Your task to perform on an android device: When is my next appointment? Image 0: 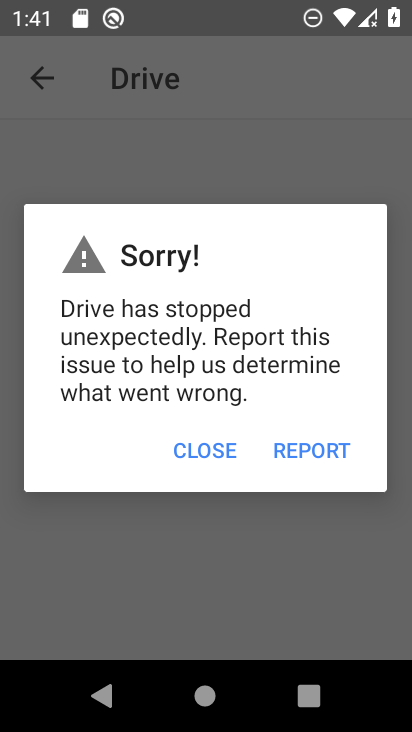
Step 0: click (203, 450)
Your task to perform on an android device: When is my next appointment? Image 1: 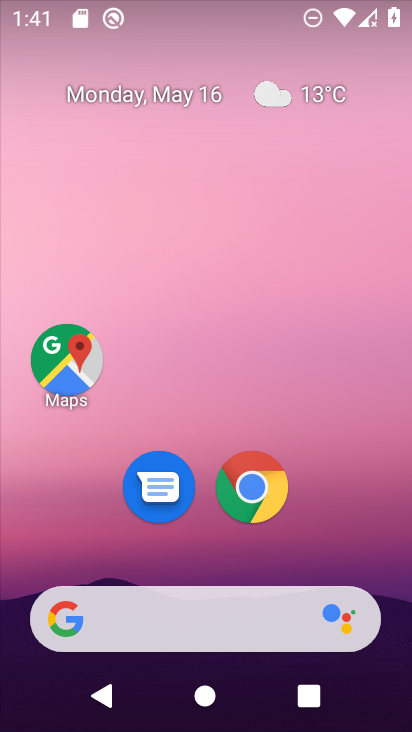
Step 1: drag from (399, 627) to (321, 209)
Your task to perform on an android device: When is my next appointment? Image 2: 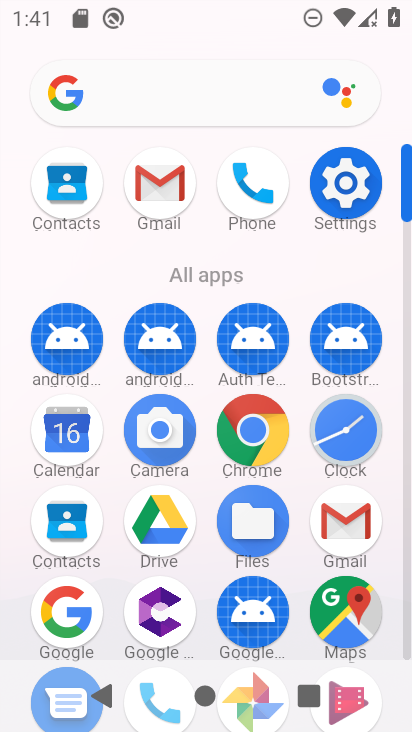
Step 2: click (79, 444)
Your task to perform on an android device: When is my next appointment? Image 3: 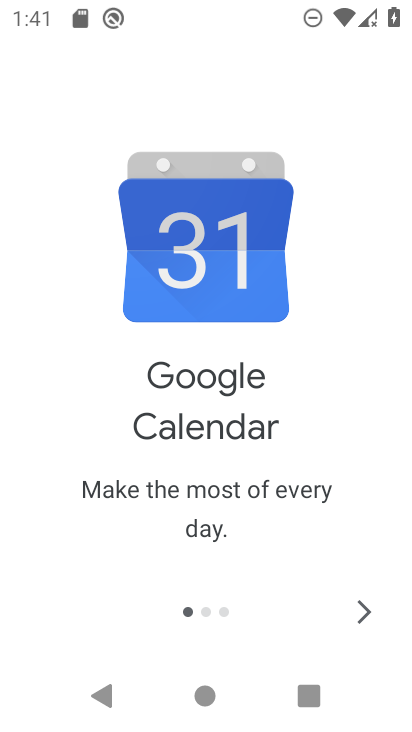
Step 3: click (215, 484)
Your task to perform on an android device: When is my next appointment? Image 4: 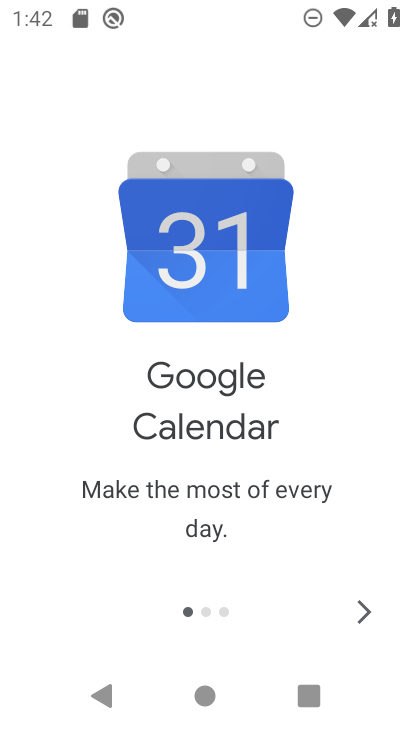
Step 4: click (360, 610)
Your task to perform on an android device: When is my next appointment? Image 5: 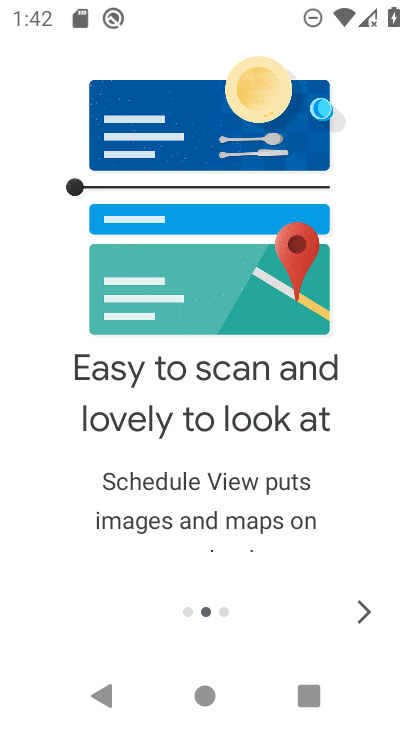
Step 5: click (360, 609)
Your task to perform on an android device: When is my next appointment? Image 6: 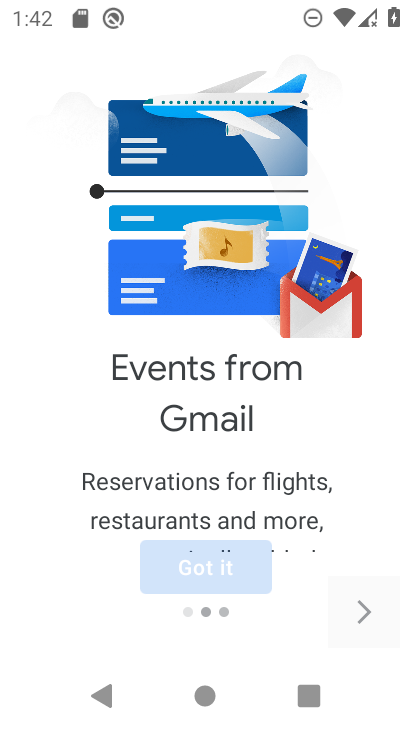
Step 6: click (360, 609)
Your task to perform on an android device: When is my next appointment? Image 7: 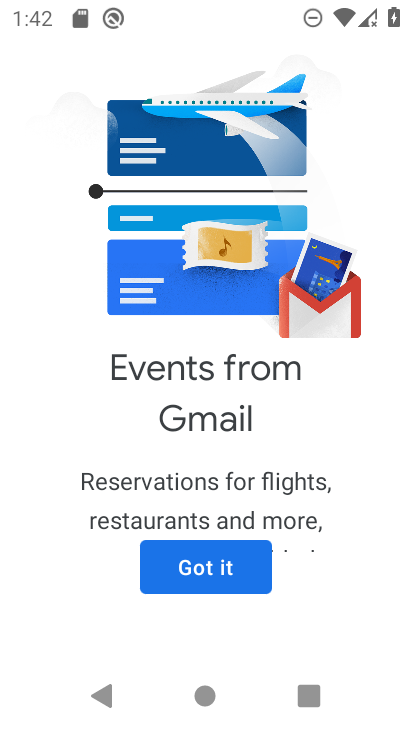
Step 7: click (243, 565)
Your task to perform on an android device: When is my next appointment? Image 8: 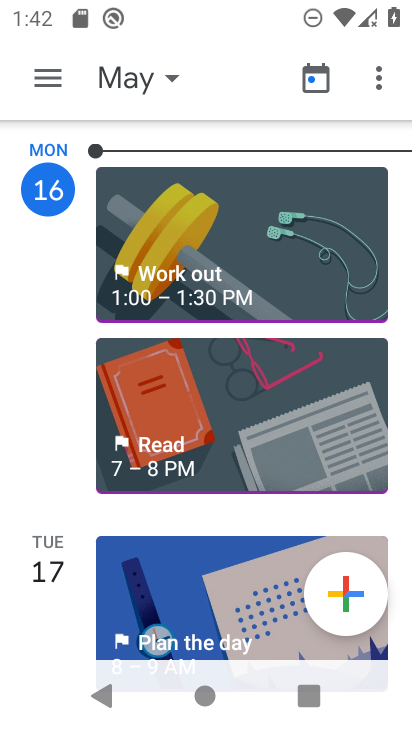
Step 8: click (49, 76)
Your task to perform on an android device: When is my next appointment? Image 9: 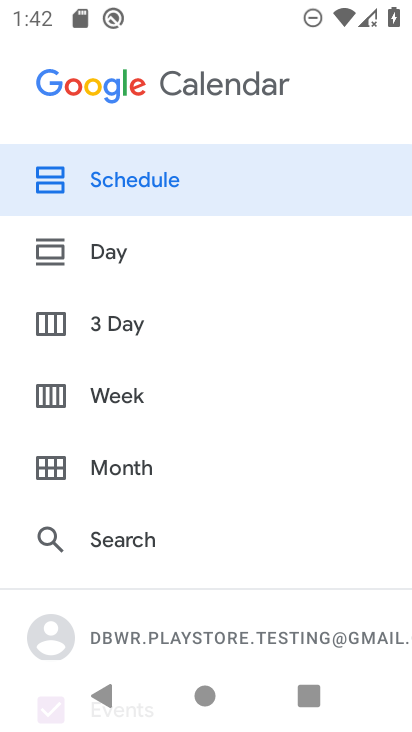
Step 9: click (107, 183)
Your task to perform on an android device: When is my next appointment? Image 10: 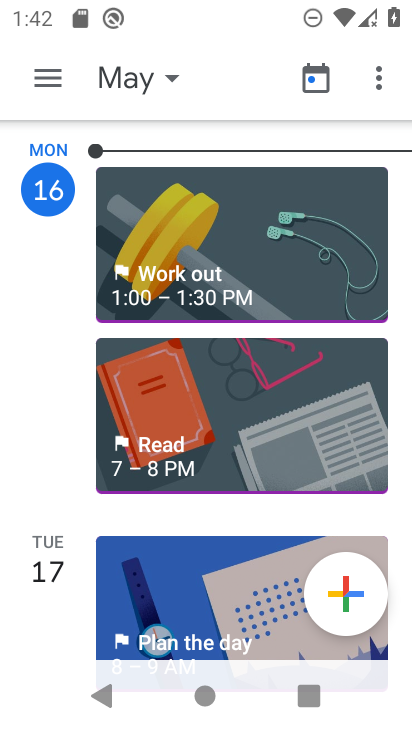
Step 10: click (55, 76)
Your task to perform on an android device: When is my next appointment? Image 11: 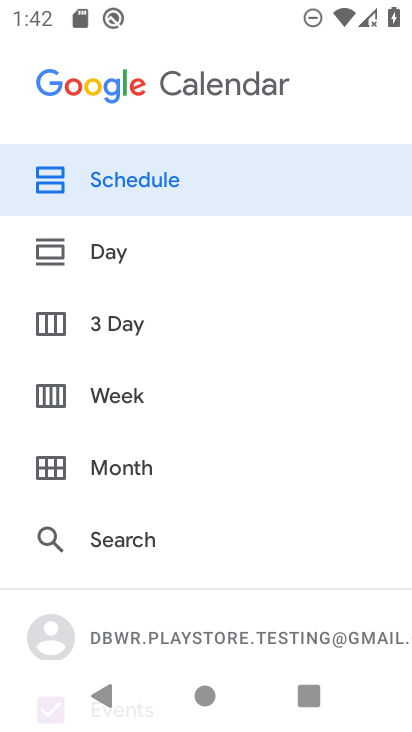
Step 11: drag from (252, 570) to (291, 274)
Your task to perform on an android device: When is my next appointment? Image 12: 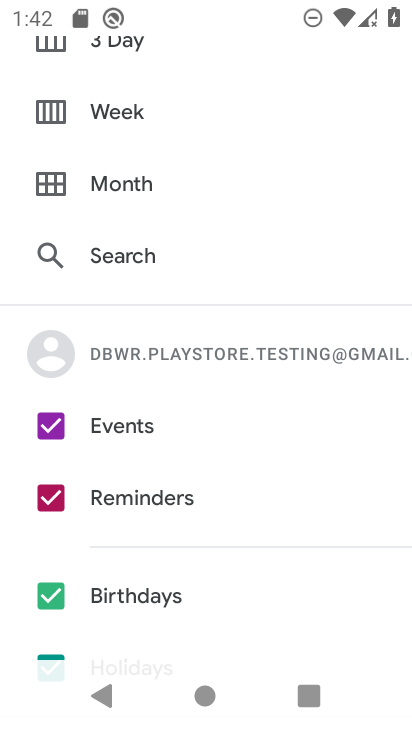
Step 12: drag from (134, 604) to (120, 420)
Your task to perform on an android device: When is my next appointment? Image 13: 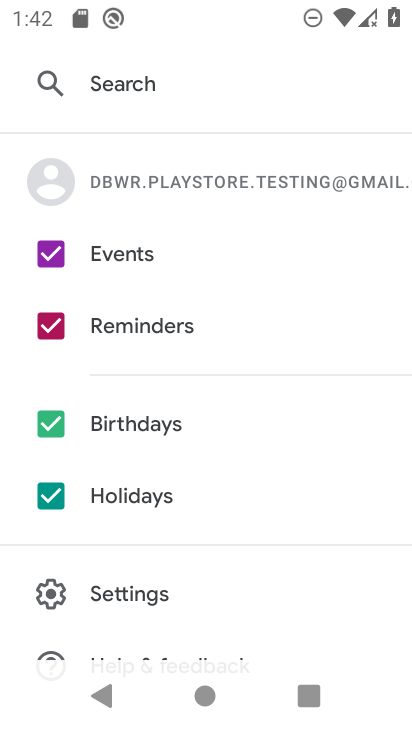
Step 13: click (54, 482)
Your task to perform on an android device: When is my next appointment? Image 14: 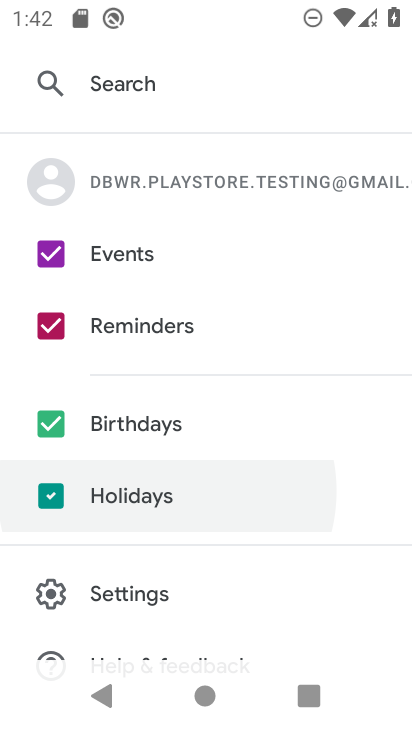
Step 14: click (54, 406)
Your task to perform on an android device: When is my next appointment? Image 15: 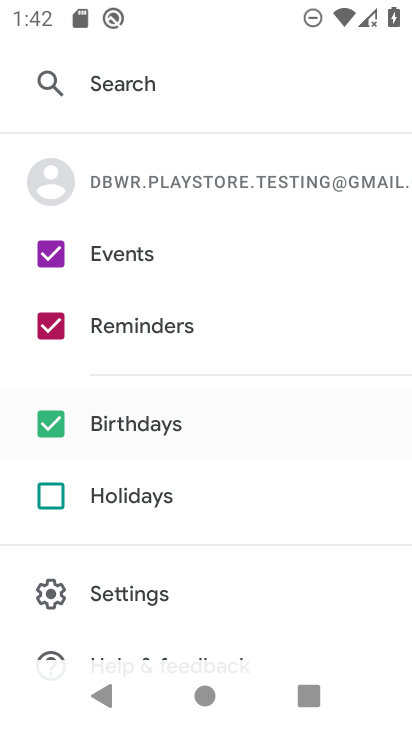
Step 15: click (55, 330)
Your task to perform on an android device: When is my next appointment? Image 16: 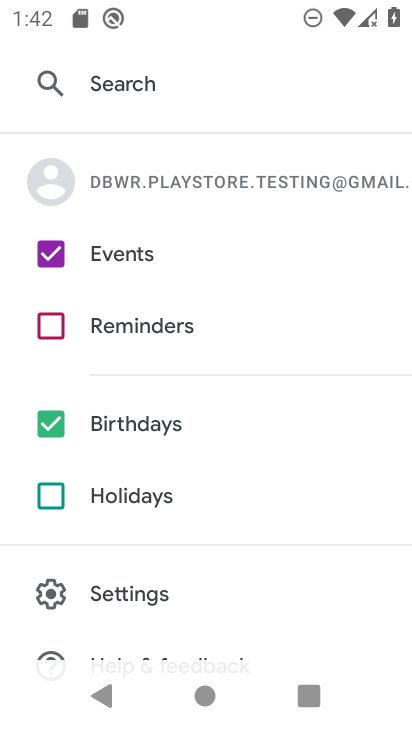
Step 16: click (48, 426)
Your task to perform on an android device: When is my next appointment? Image 17: 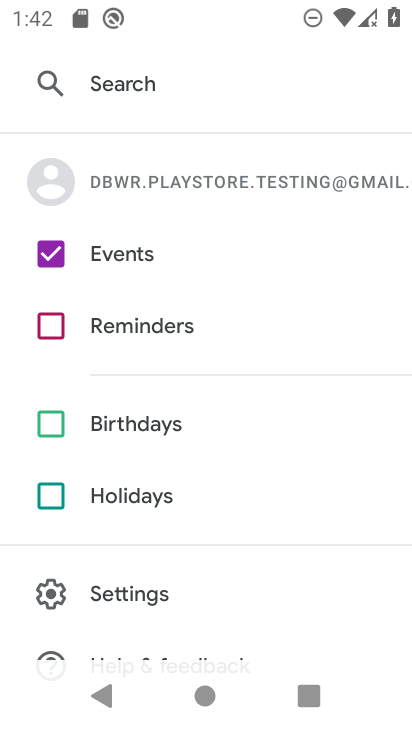
Step 17: drag from (254, 182) to (323, 560)
Your task to perform on an android device: When is my next appointment? Image 18: 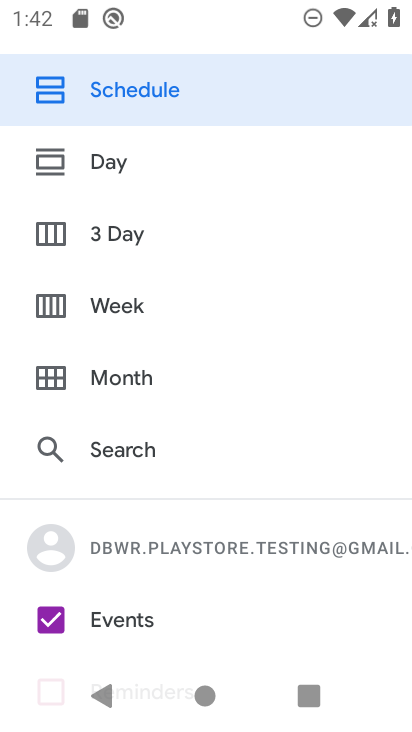
Step 18: click (110, 87)
Your task to perform on an android device: When is my next appointment? Image 19: 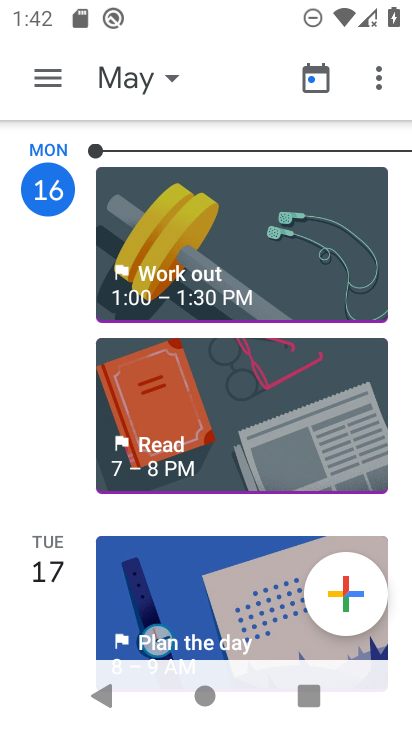
Step 19: task complete